Your task to perform on an android device: Open notification settings Image 0: 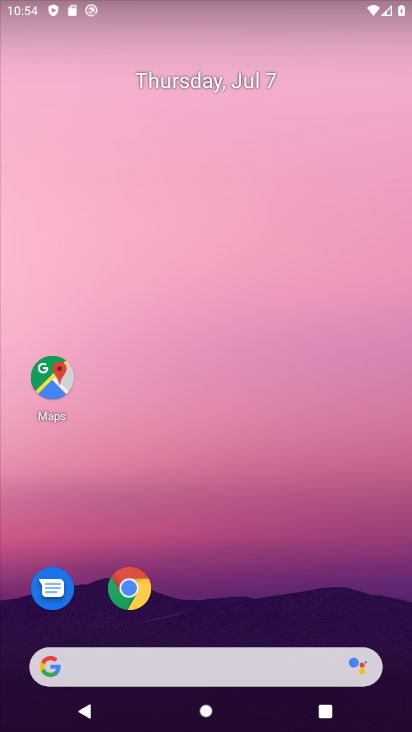
Step 0: drag from (190, 626) to (220, 13)
Your task to perform on an android device: Open notification settings Image 1: 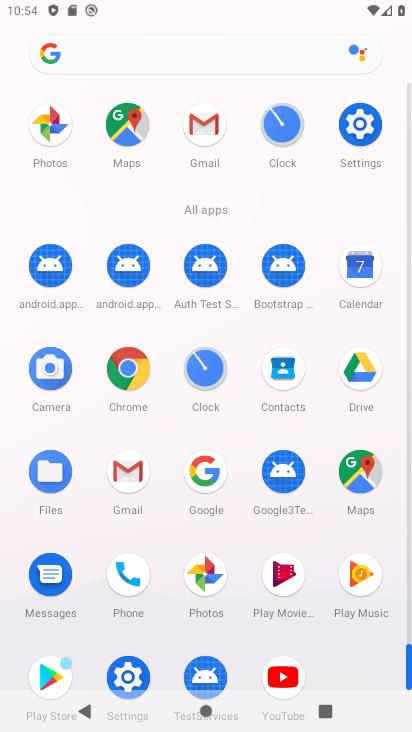
Step 1: click (370, 112)
Your task to perform on an android device: Open notification settings Image 2: 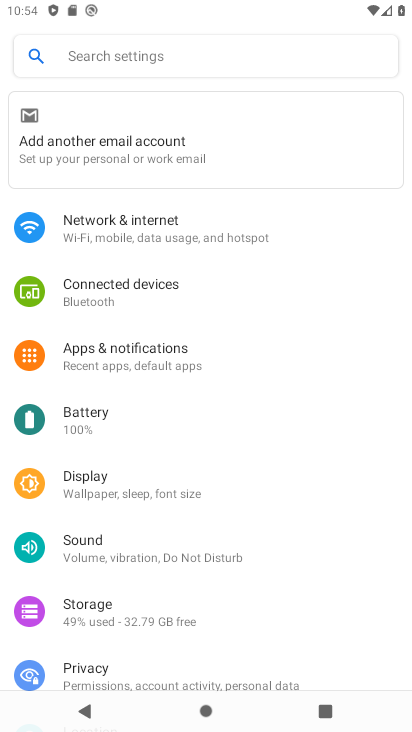
Step 2: click (168, 363)
Your task to perform on an android device: Open notification settings Image 3: 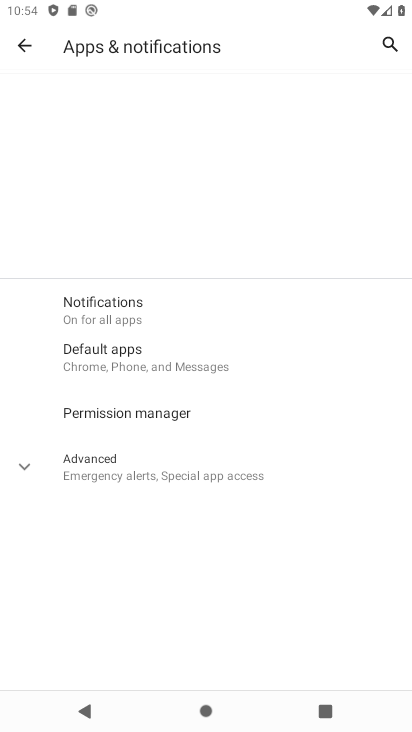
Step 3: click (161, 367)
Your task to perform on an android device: Open notification settings Image 4: 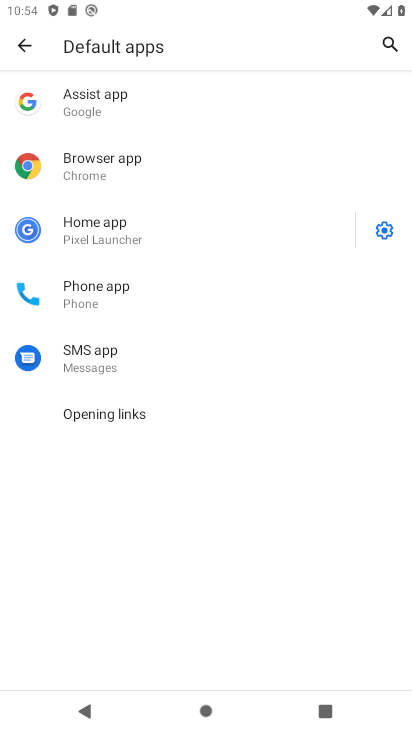
Step 4: click (26, 47)
Your task to perform on an android device: Open notification settings Image 5: 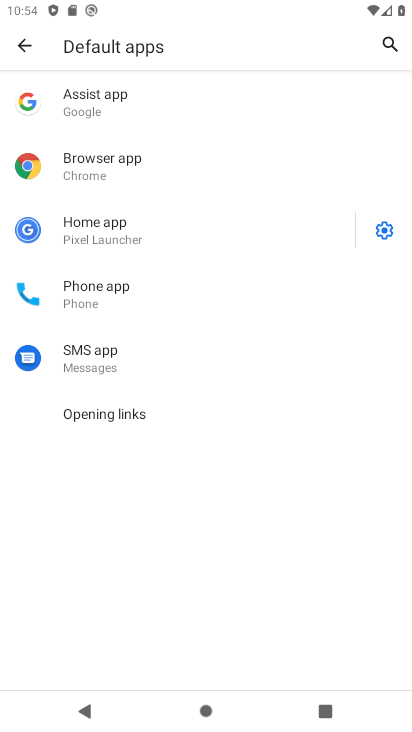
Step 5: drag from (192, 595) to (262, 286)
Your task to perform on an android device: Open notification settings Image 6: 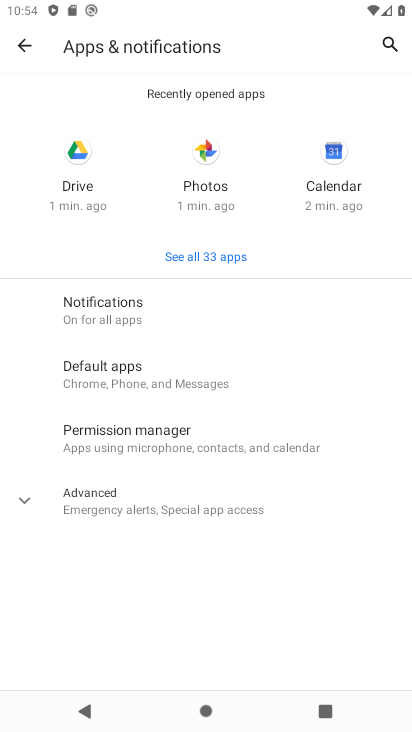
Step 6: click (174, 311)
Your task to perform on an android device: Open notification settings Image 7: 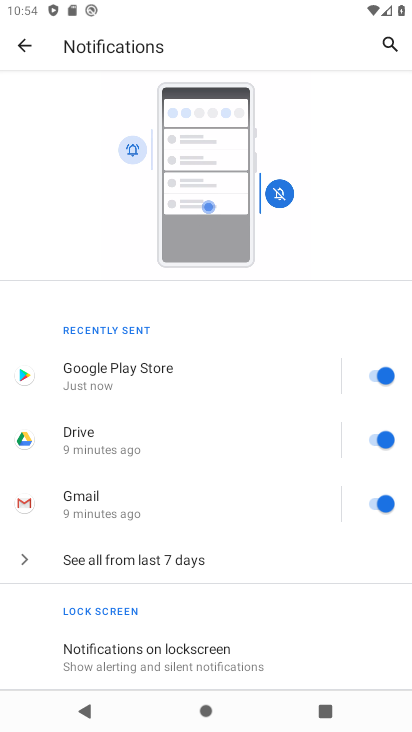
Step 7: drag from (131, 651) to (181, 281)
Your task to perform on an android device: Open notification settings Image 8: 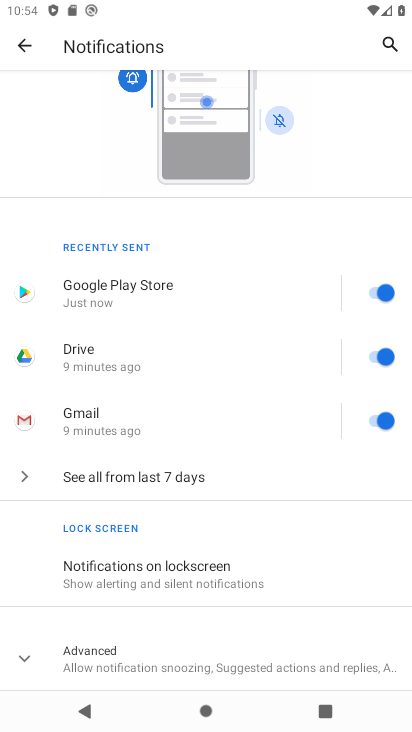
Step 8: click (132, 648)
Your task to perform on an android device: Open notification settings Image 9: 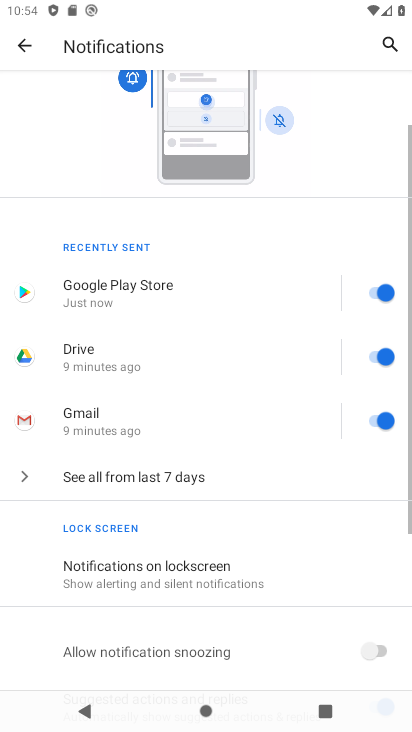
Step 9: task complete